Your task to perform on an android device: Open internet settings Image 0: 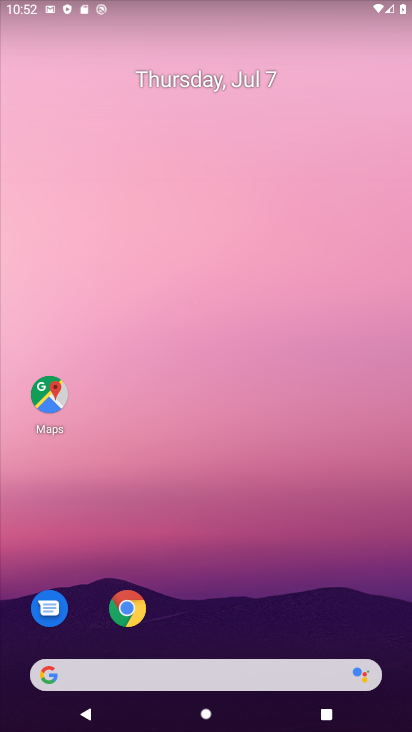
Step 0: drag from (35, 723) to (359, 14)
Your task to perform on an android device: Open internet settings Image 1: 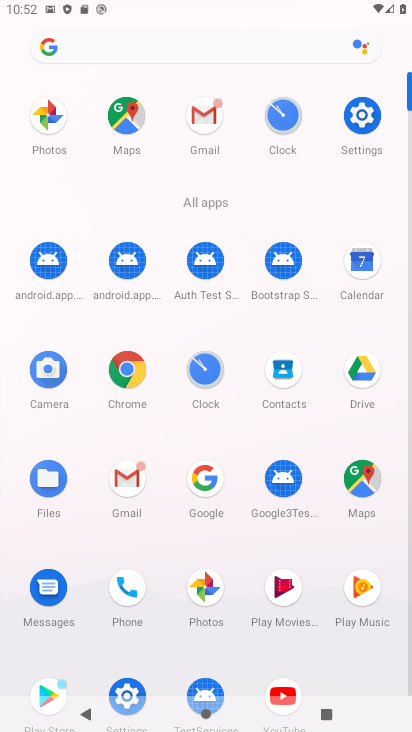
Step 1: click (127, 692)
Your task to perform on an android device: Open internet settings Image 2: 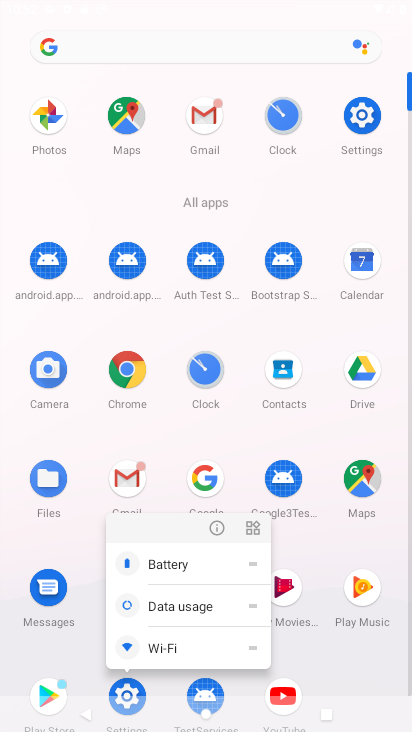
Step 2: click (140, 688)
Your task to perform on an android device: Open internet settings Image 3: 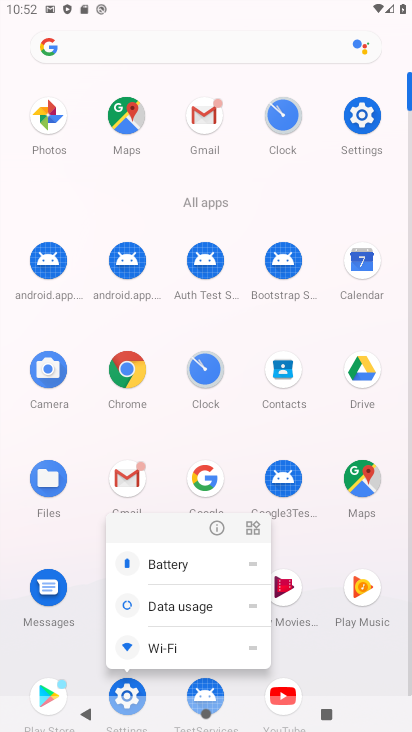
Step 3: click (122, 703)
Your task to perform on an android device: Open internet settings Image 4: 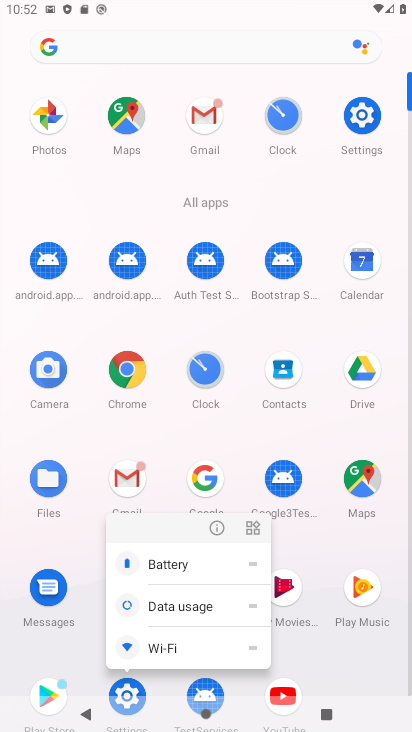
Step 4: click (127, 685)
Your task to perform on an android device: Open internet settings Image 5: 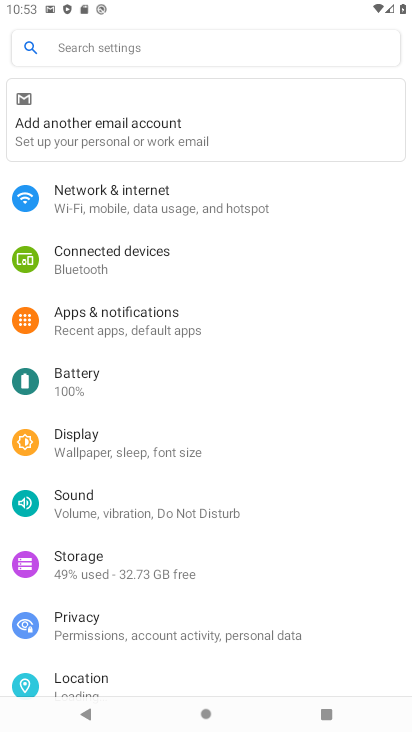
Step 5: click (126, 189)
Your task to perform on an android device: Open internet settings Image 6: 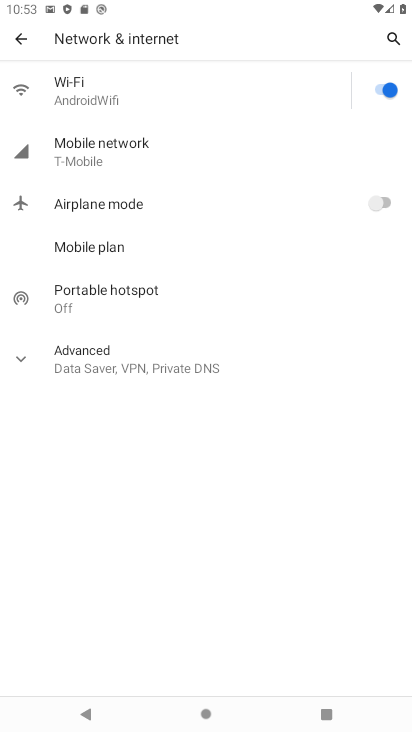
Step 6: task complete